Your task to perform on an android device: Go to Amazon Image 0: 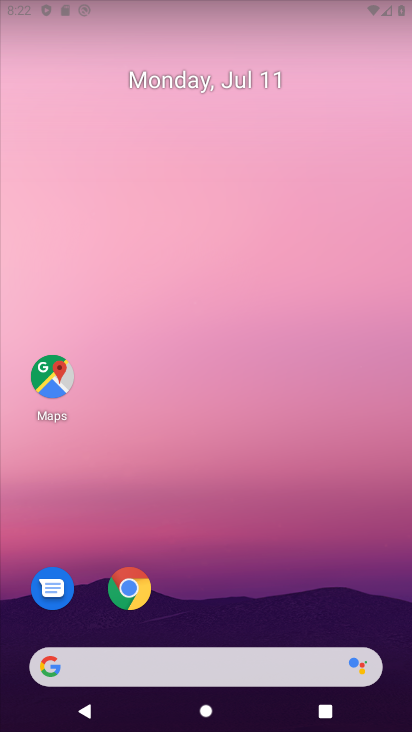
Step 0: click (131, 595)
Your task to perform on an android device: Go to Amazon Image 1: 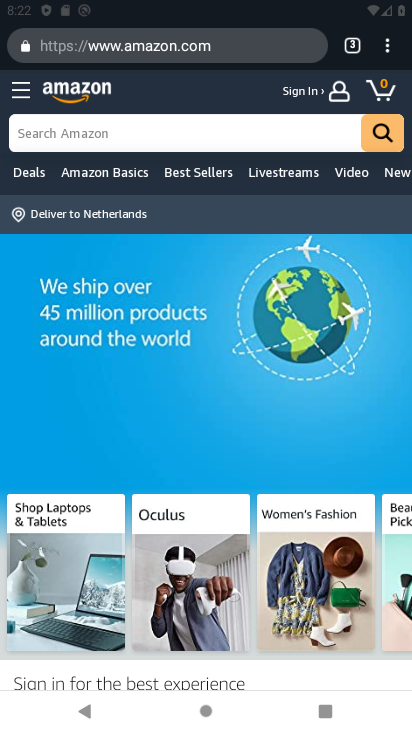
Step 1: task complete